Your task to perform on an android device: turn off location Image 0: 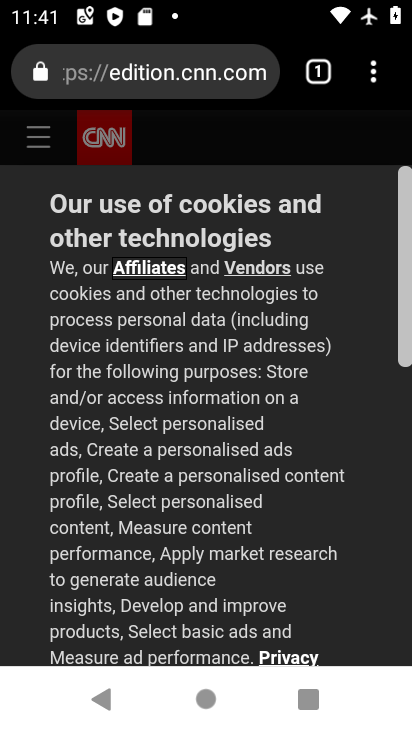
Step 0: press home button
Your task to perform on an android device: turn off location Image 1: 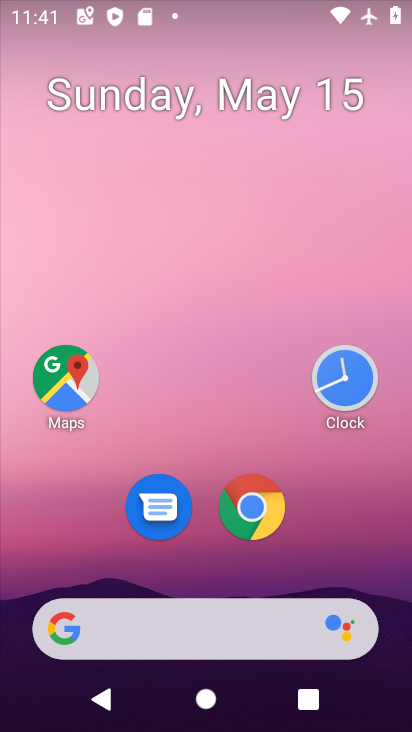
Step 1: drag from (261, 556) to (271, 46)
Your task to perform on an android device: turn off location Image 2: 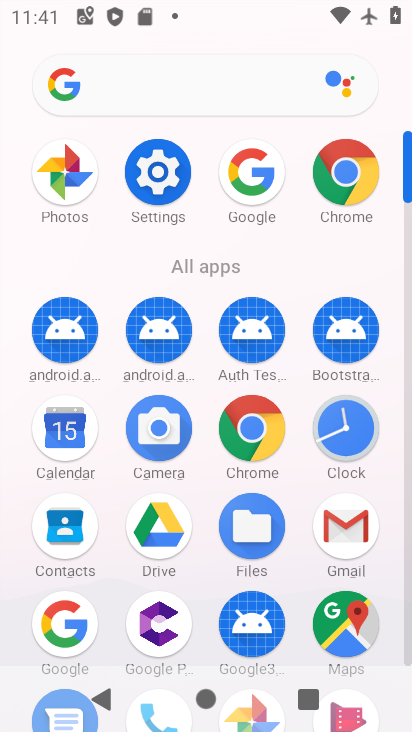
Step 2: click (169, 158)
Your task to perform on an android device: turn off location Image 3: 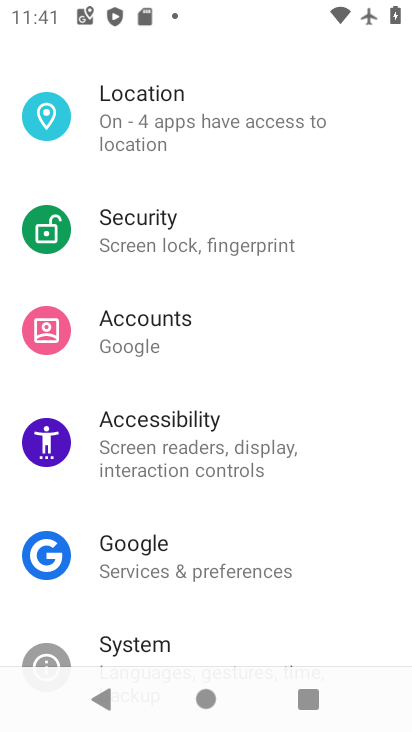
Step 3: click (204, 136)
Your task to perform on an android device: turn off location Image 4: 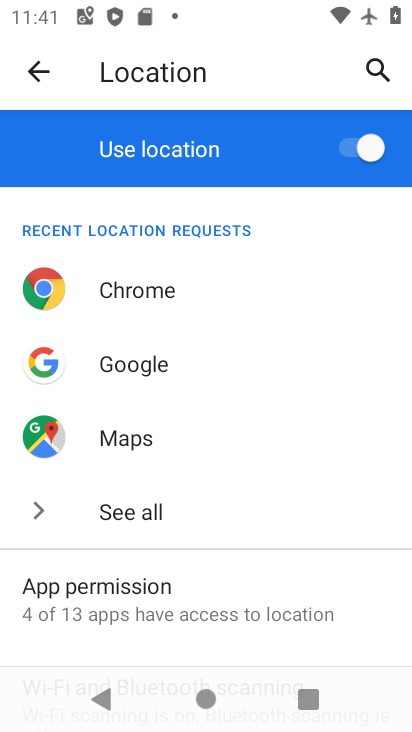
Step 4: drag from (132, 557) to (153, 371)
Your task to perform on an android device: turn off location Image 5: 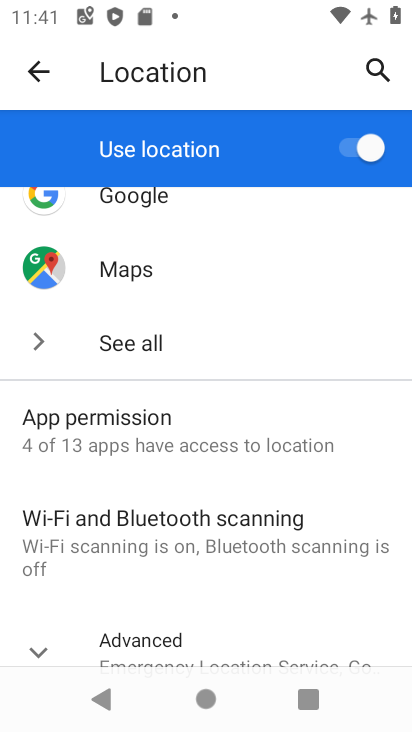
Step 5: drag from (62, 607) to (91, 418)
Your task to perform on an android device: turn off location Image 6: 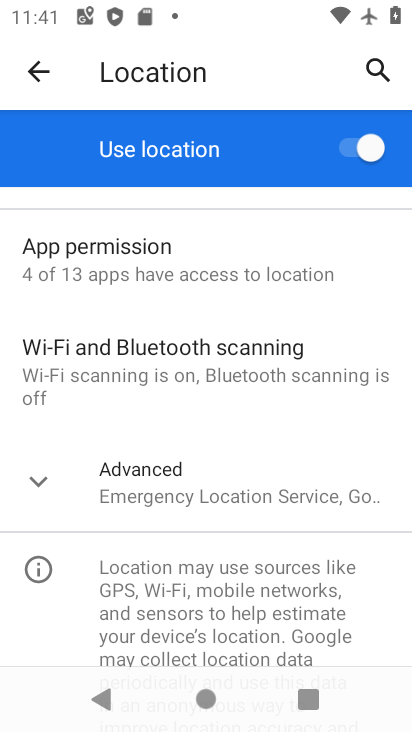
Step 6: click (40, 479)
Your task to perform on an android device: turn off location Image 7: 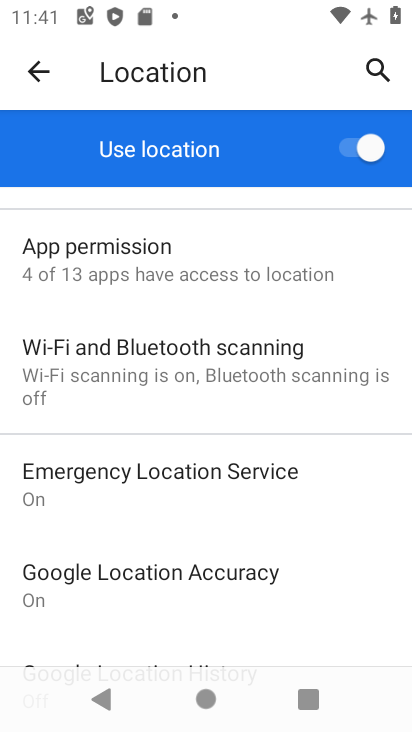
Step 7: click (376, 153)
Your task to perform on an android device: turn off location Image 8: 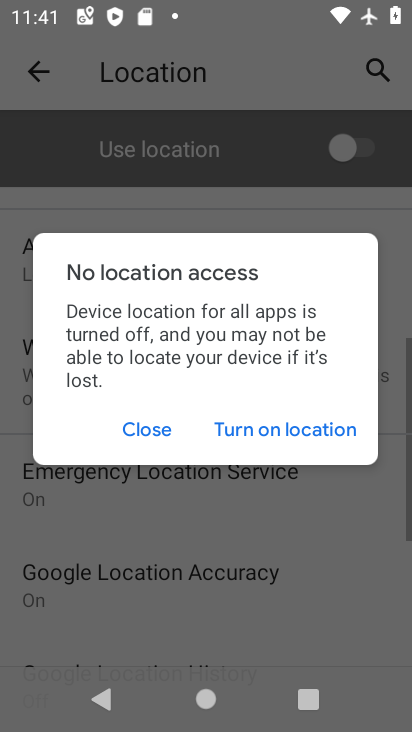
Step 8: task complete